Your task to perform on an android device: turn notification dots off Image 0: 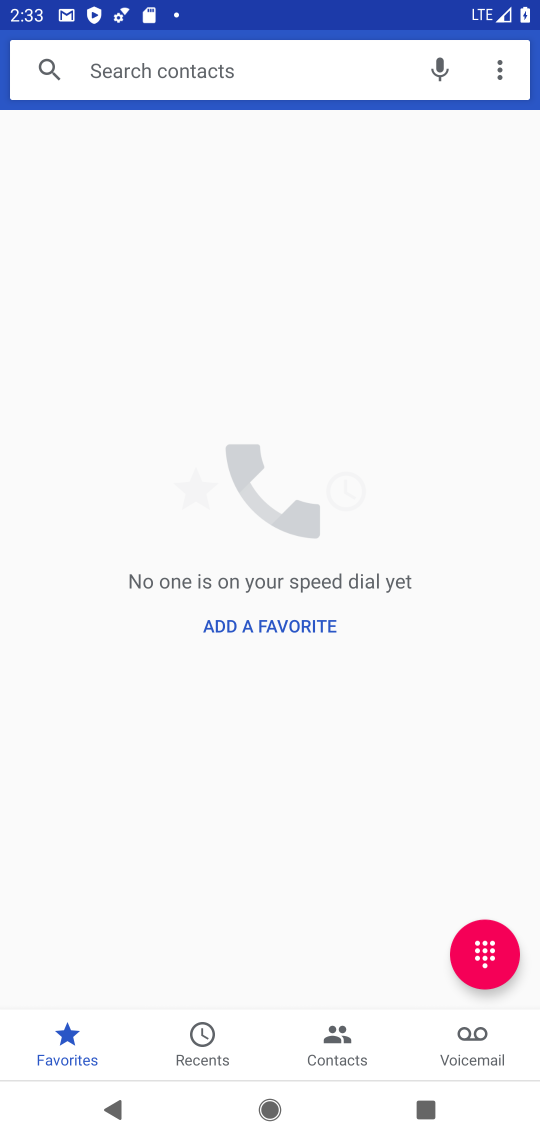
Step 0: press home button
Your task to perform on an android device: turn notification dots off Image 1: 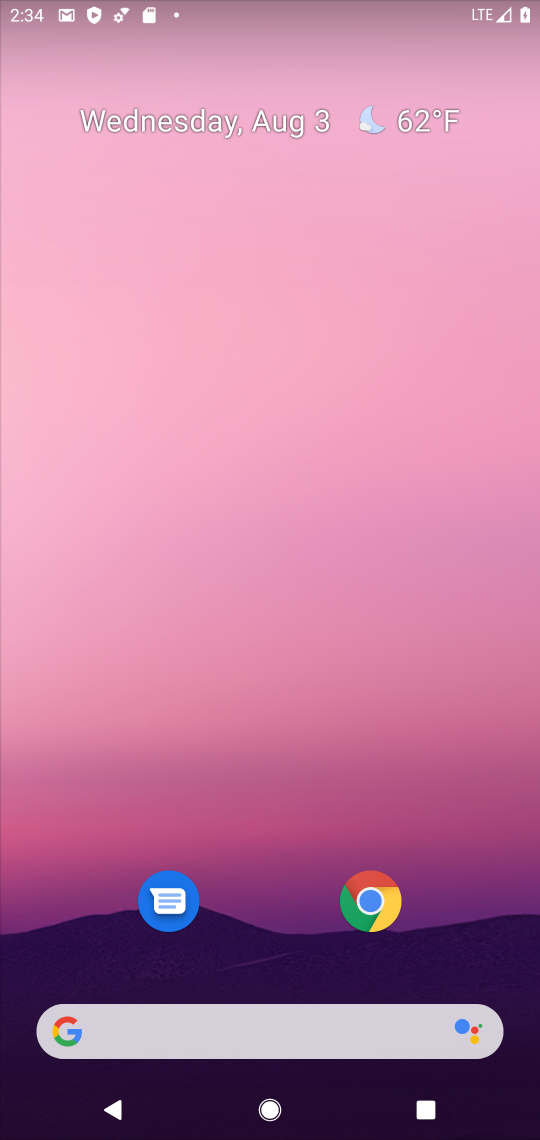
Step 1: drag from (248, 955) to (290, 292)
Your task to perform on an android device: turn notification dots off Image 2: 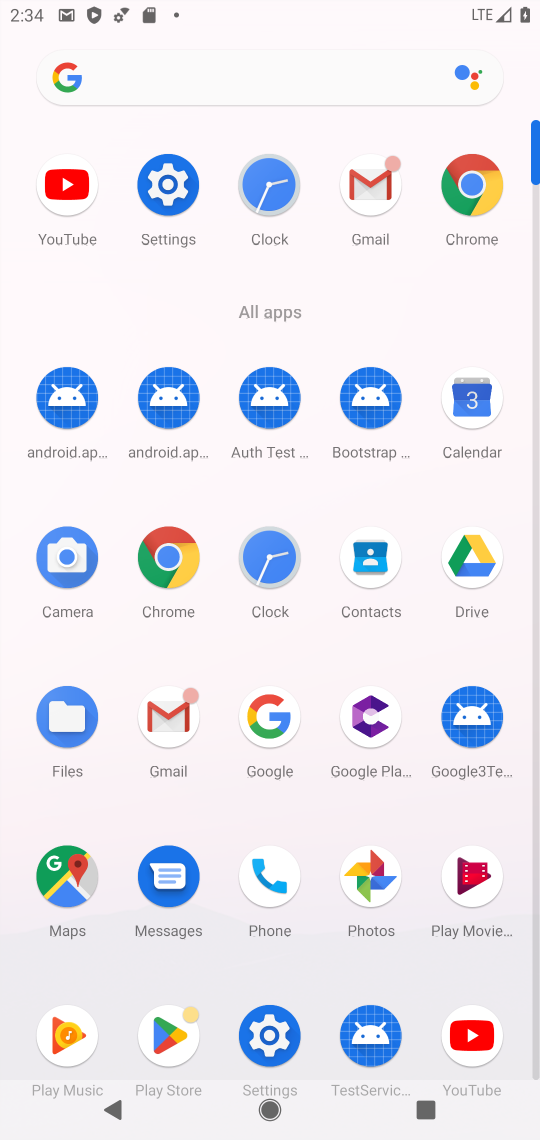
Step 2: click (179, 196)
Your task to perform on an android device: turn notification dots off Image 3: 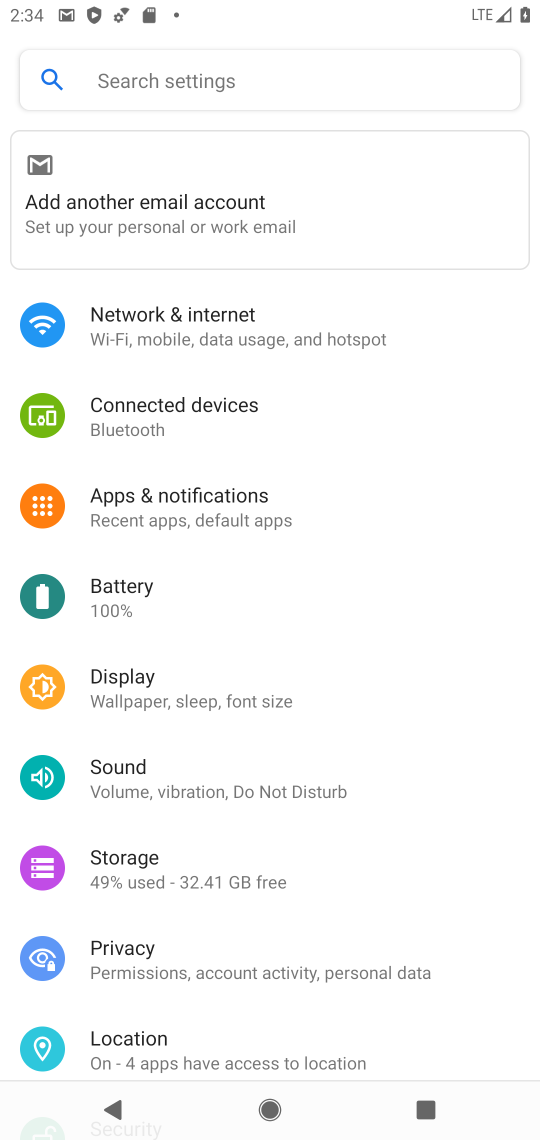
Step 3: click (278, 82)
Your task to perform on an android device: turn notification dots off Image 4: 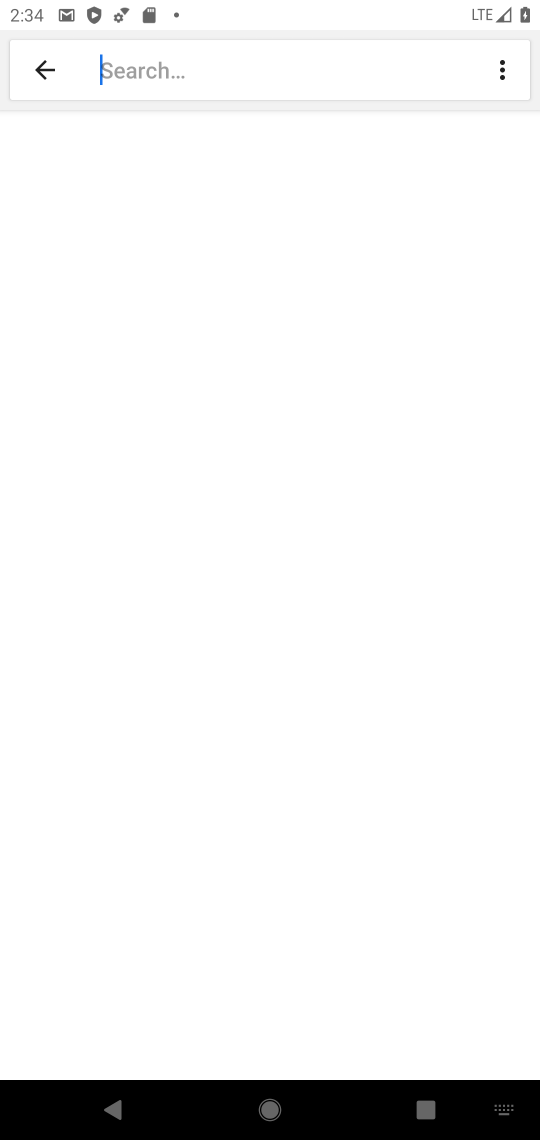
Step 4: click (304, 79)
Your task to perform on an android device: turn notification dots off Image 5: 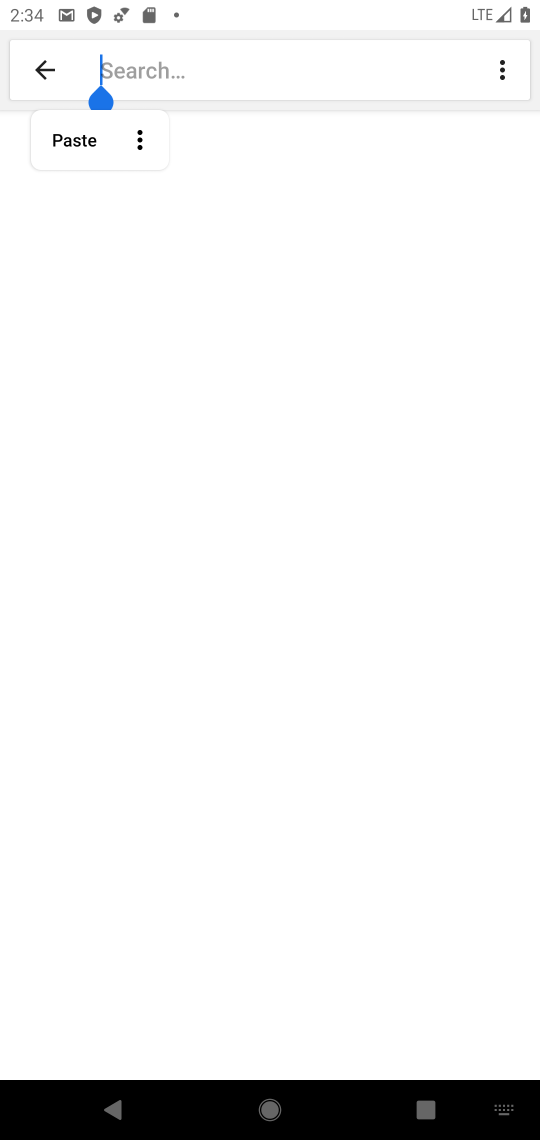
Step 5: type "notification dots "
Your task to perform on an android device: turn notification dots off Image 6: 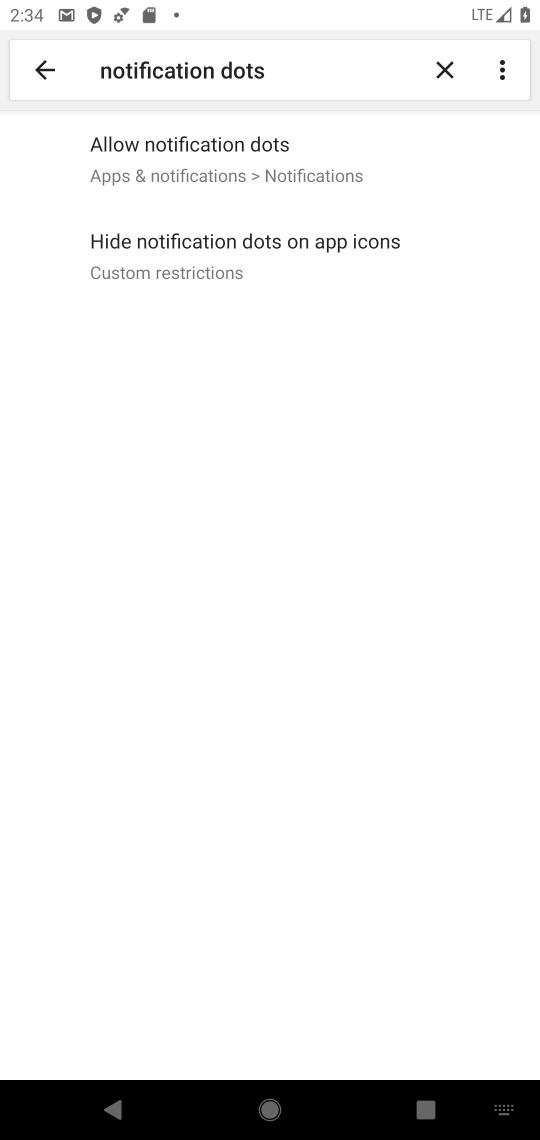
Step 6: click (335, 143)
Your task to perform on an android device: turn notification dots off Image 7: 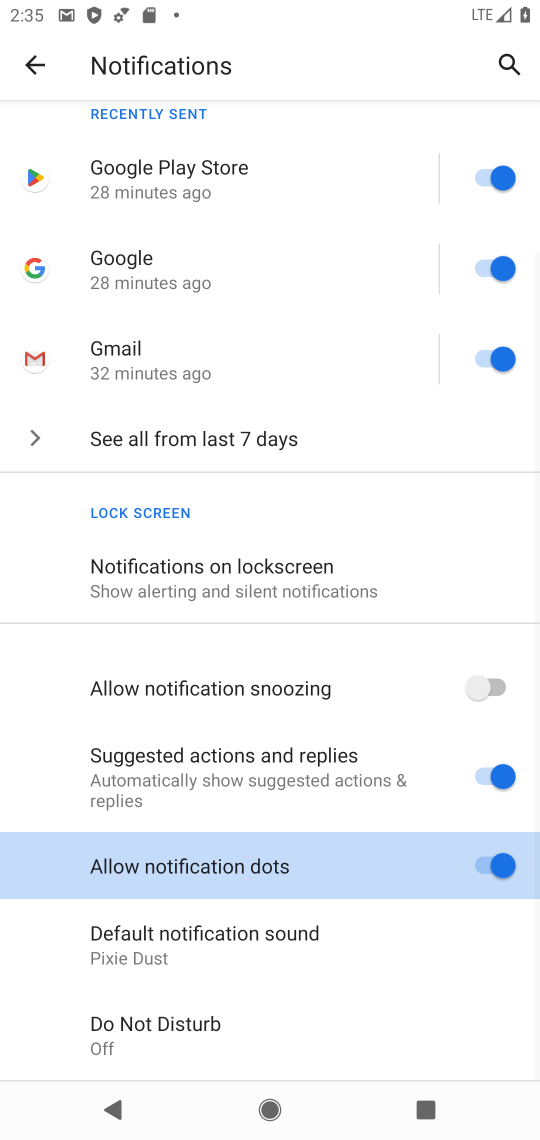
Step 7: click (510, 843)
Your task to perform on an android device: turn notification dots off Image 8: 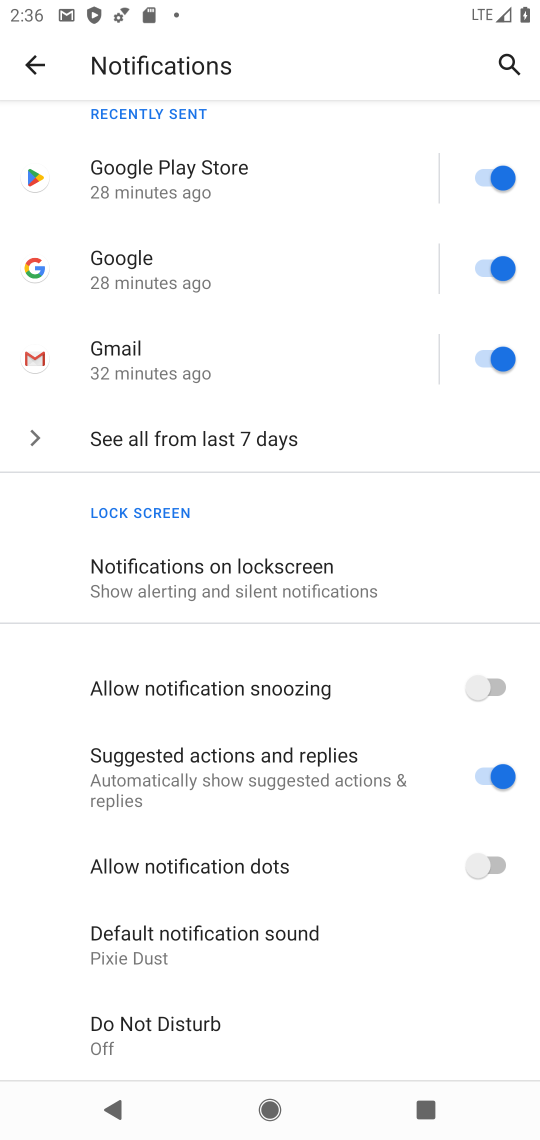
Step 8: task complete